Your task to perform on an android device: Go to wifi settings Image 0: 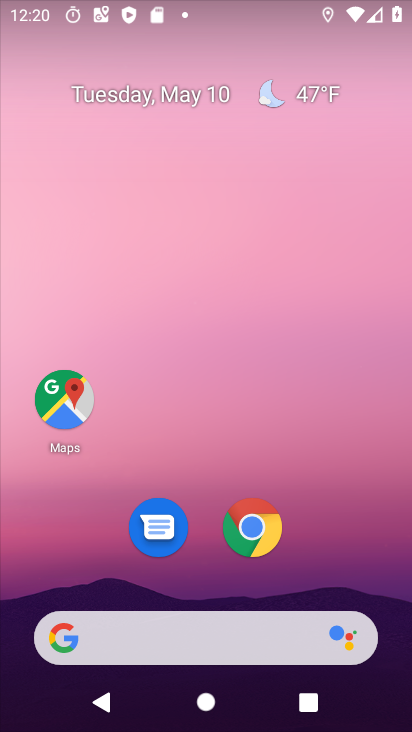
Step 0: drag from (353, 542) to (344, 145)
Your task to perform on an android device: Go to wifi settings Image 1: 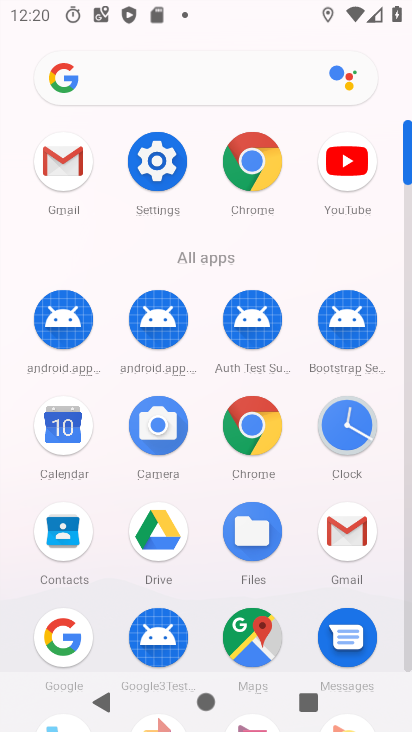
Step 1: click (164, 154)
Your task to perform on an android device: Go to wifi settings Image 2: 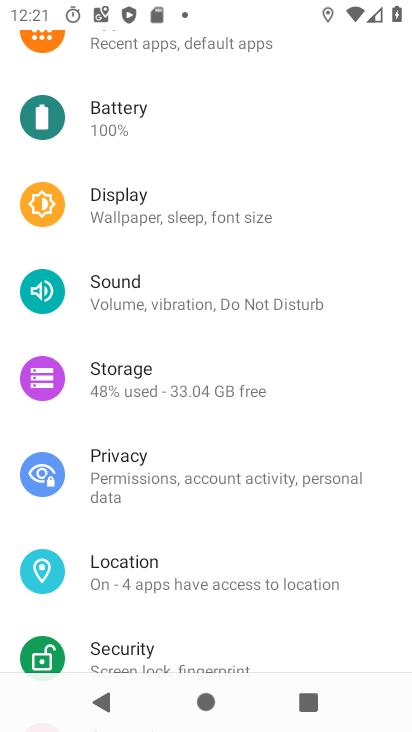
Step 2: drag from (229, 150) to (245, 619)
Your task to perform on an android device: Go to wifi settings Image 3: 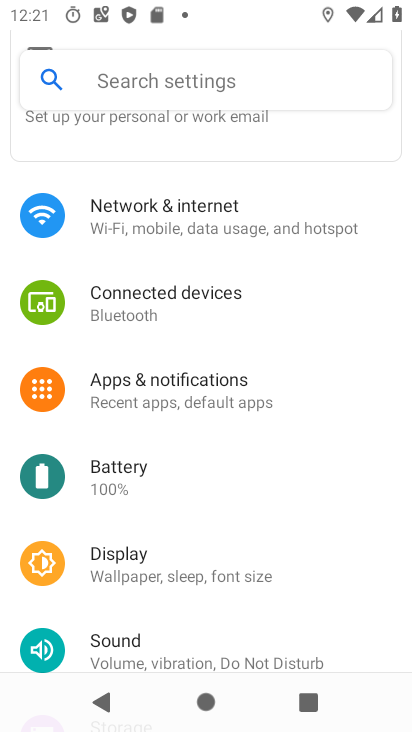
Step 3: click (252, 219)
Your task to perform on an android device: Go to wifi settings Image 4: 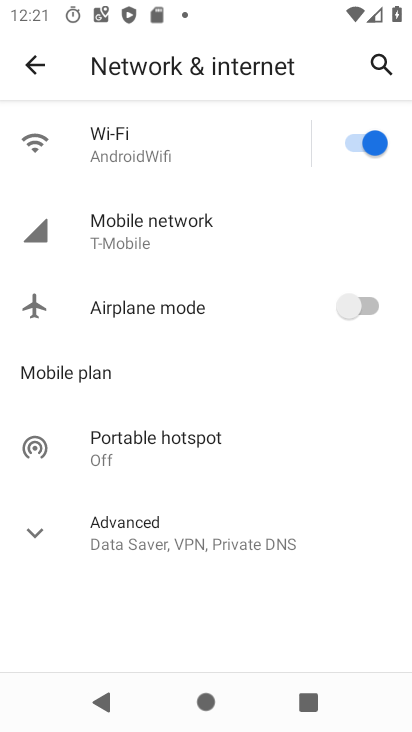
Step 4: click (230, 160)
Your task to perform on an android device: Go to wifi settings Image 5: 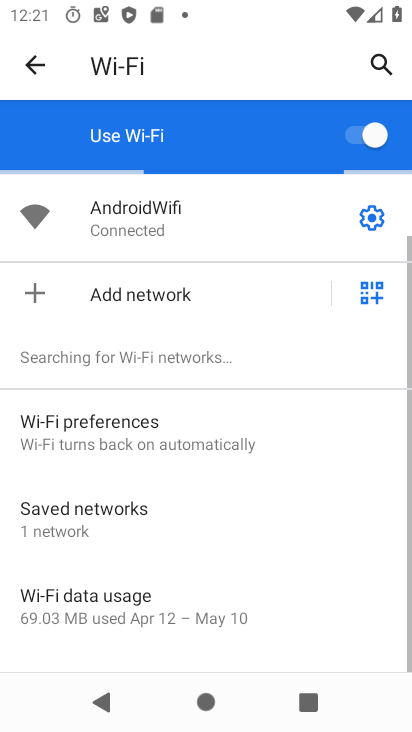
Step 5: click (366, 218)
Your task to perform on an android device: Go to wifi settings Image 6: 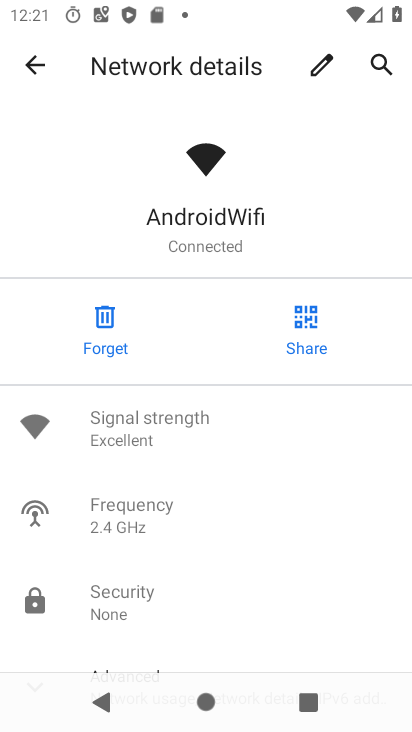
Step 6: task complete